Your task to perform on an android device: Set the phone to "Do not disturb". Image 0: 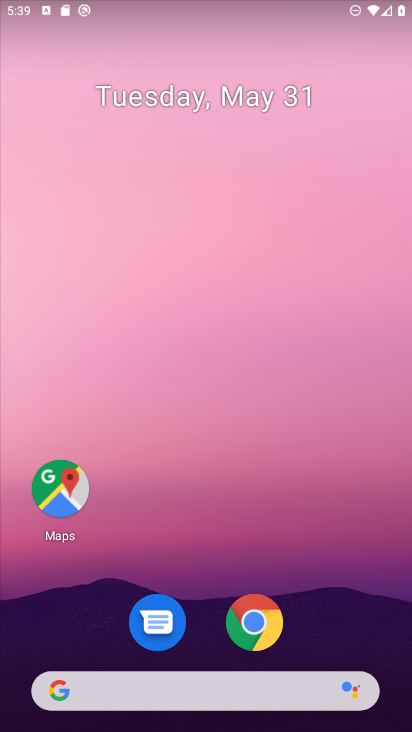
Step 0: drag from (235, 685) to (226, 49)
Your task to perform on an android device: Set the phone to "Do not disturb". Image 1: 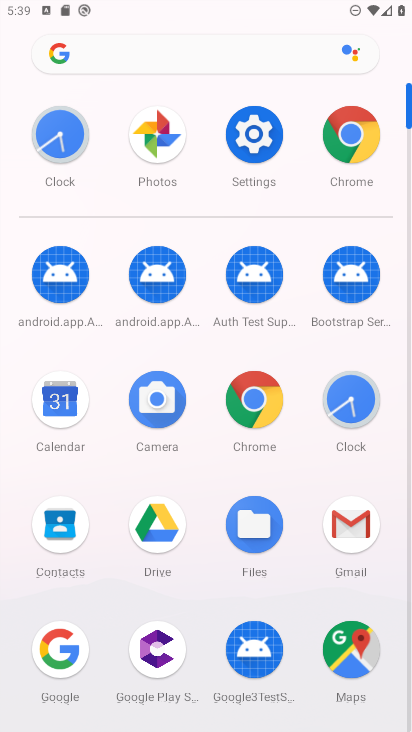
Step 1: click (249, 123)
Your task to perform on an android device: Set the phone to "Do not disturb". Image 2: 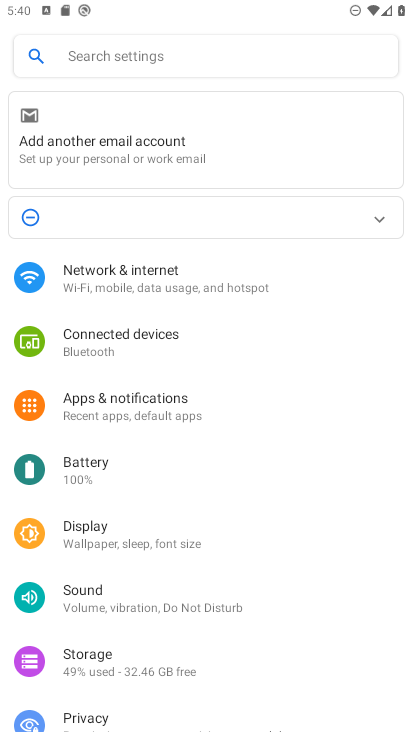
Step 2: click (158, 586)
Your task to perform on an android device: Set the phone to "Do not disturb". Image 3: 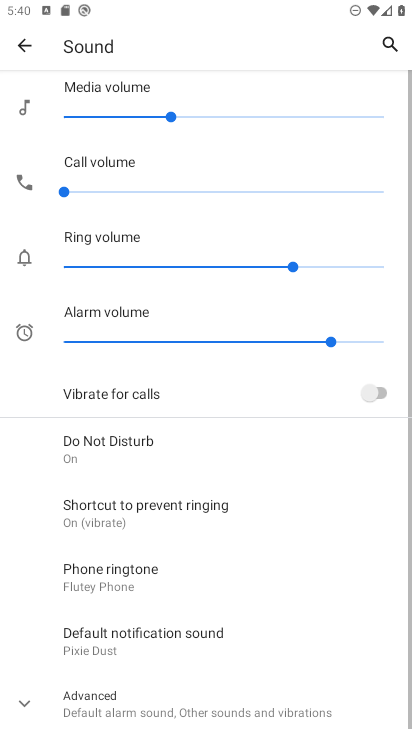
Step 3: drag from (190, 707) to (219, 443)
Your task to perform on an android device: Set the phone to "Do not disturb". Image 4: 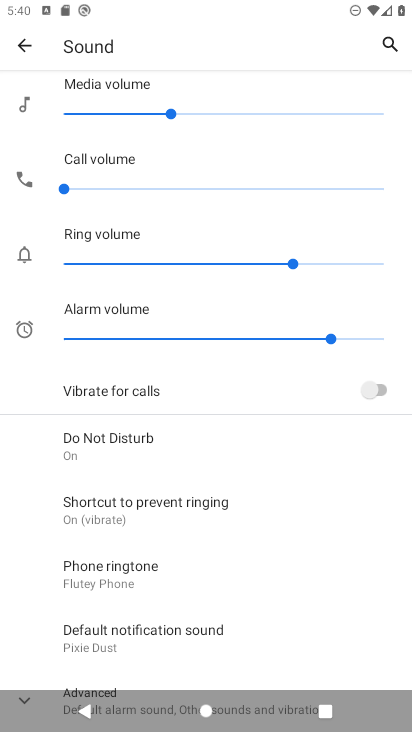
Step 4: click (132, 436)
Your task to perform on an android device: Set the phone to "Do not disturb". Image 5: 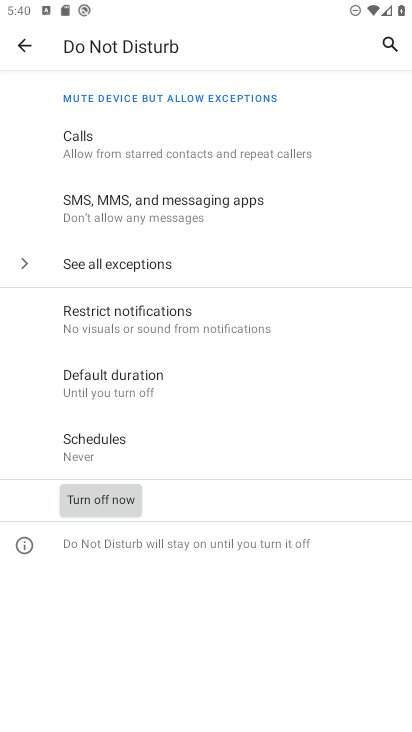
Step 5: task complete